Your task to perform on an android device: Open Reddit.com Image 0: 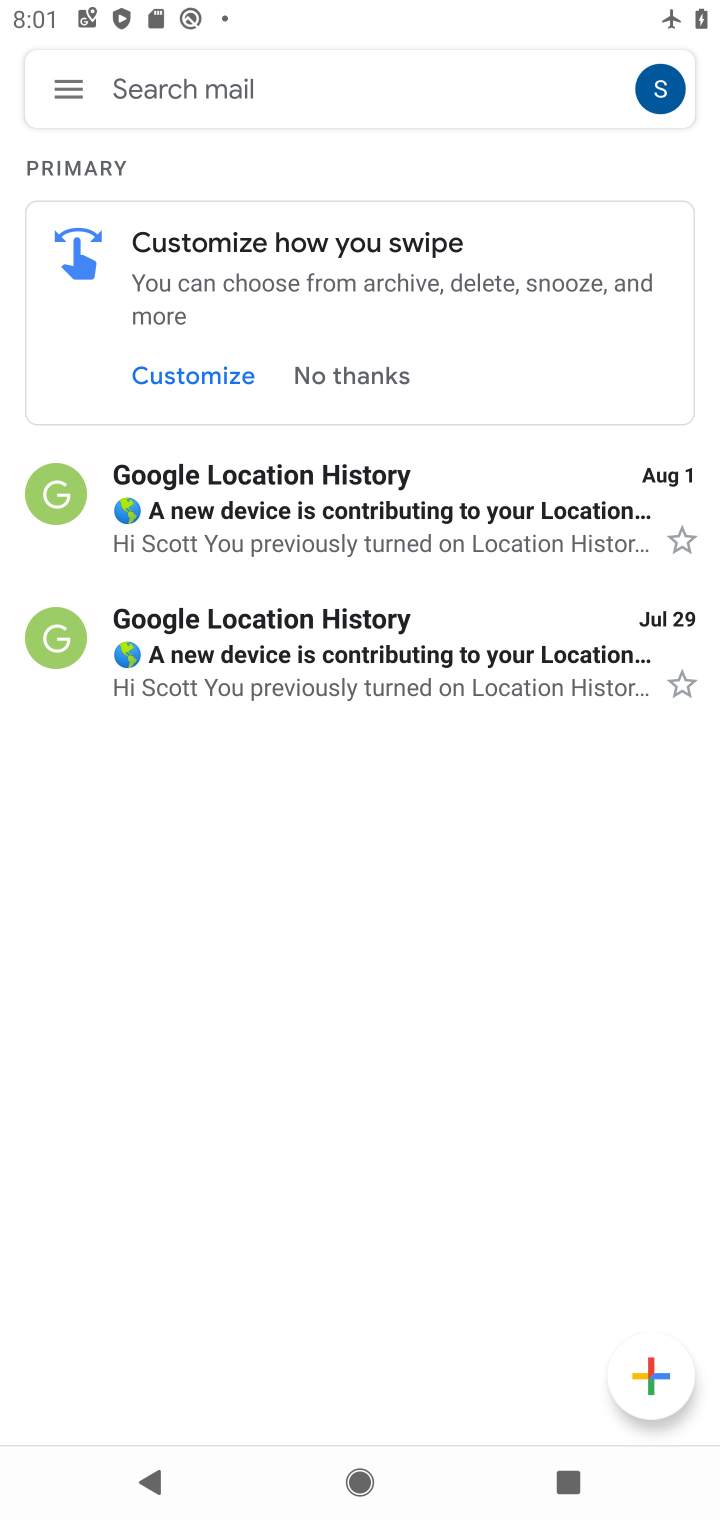
Step 0: press home button
Your task to perform on an android device: Open Reddit.com Image 1: 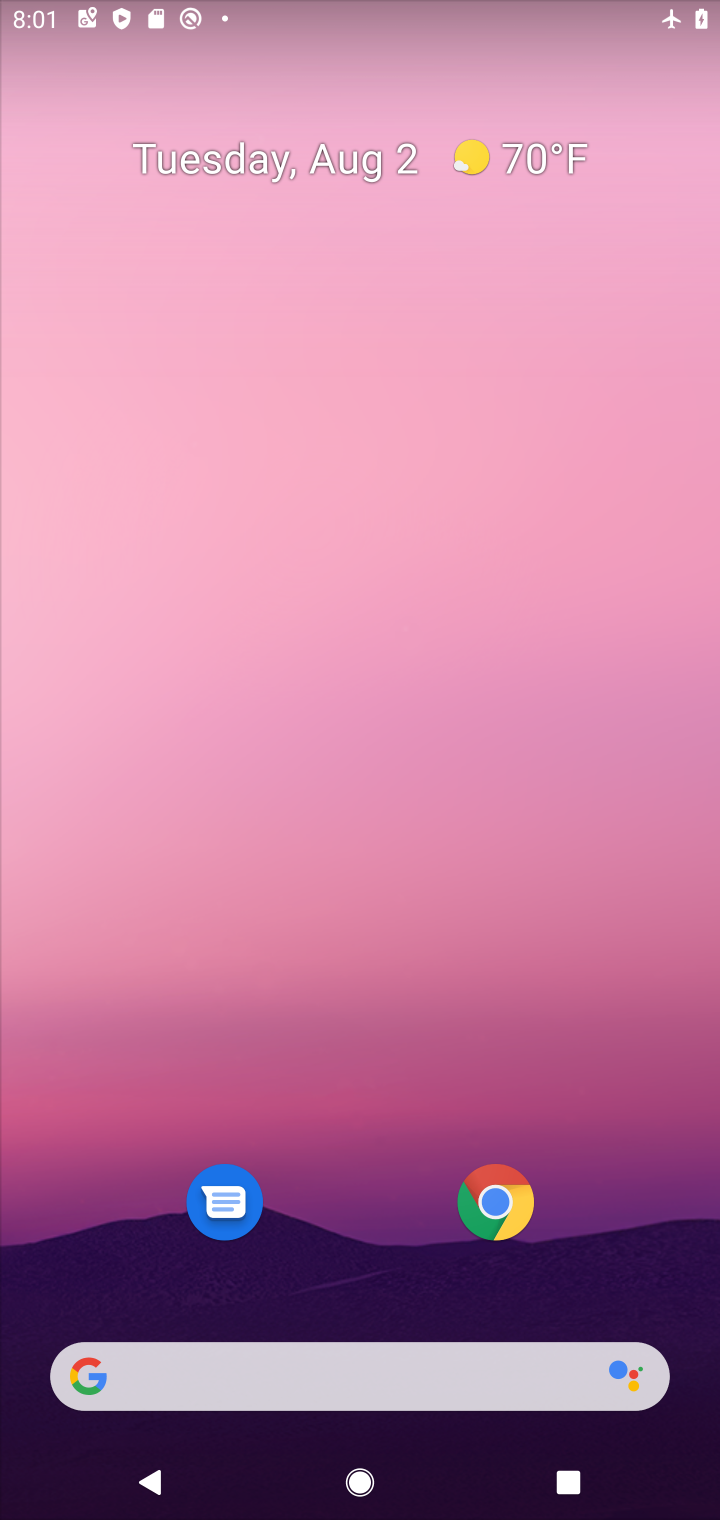
Step 1: drag from (367, 1203) to (412, 177)
Your task to perform on an android device: Open Reddit.com Image 2: 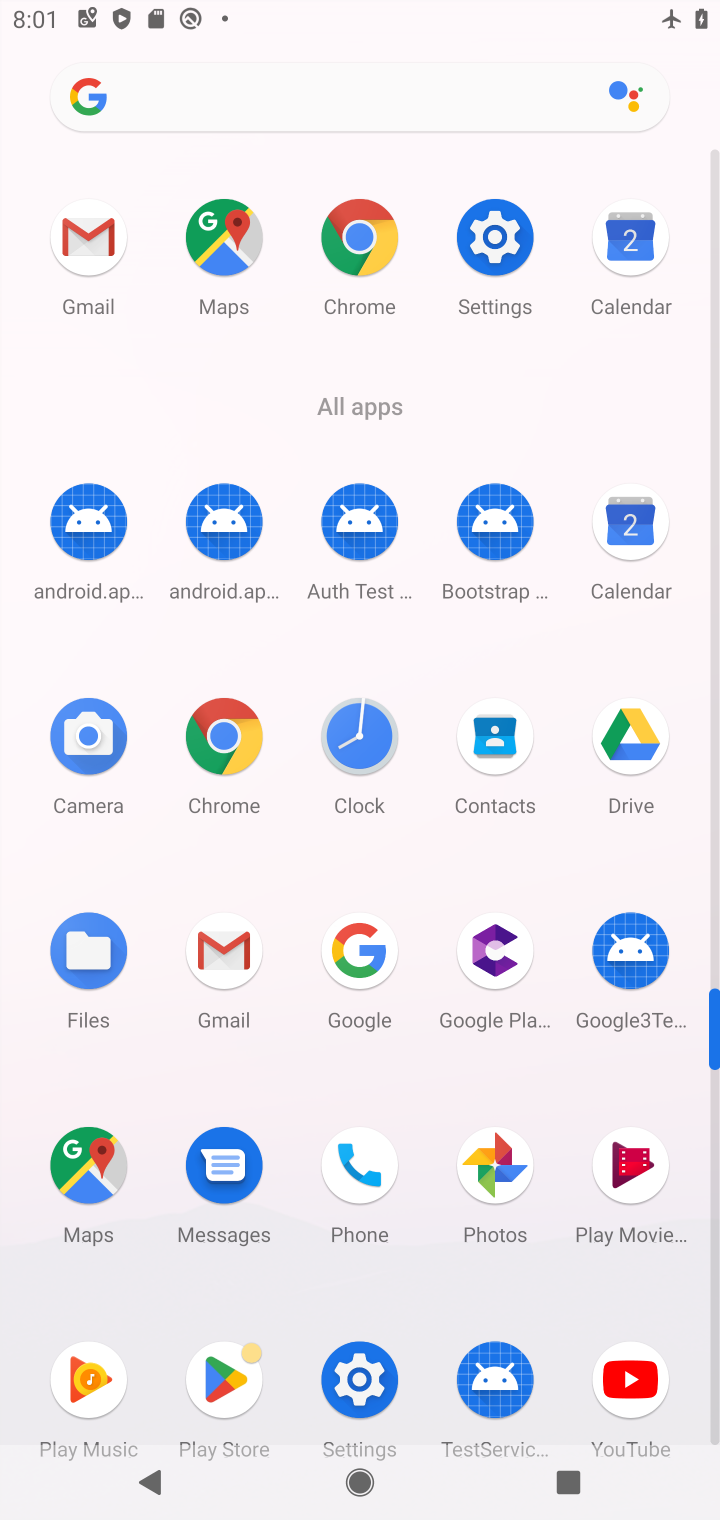
Step 2: click (275, 96)
Your task to perform on an android device: Open Reddit.com Image 3: 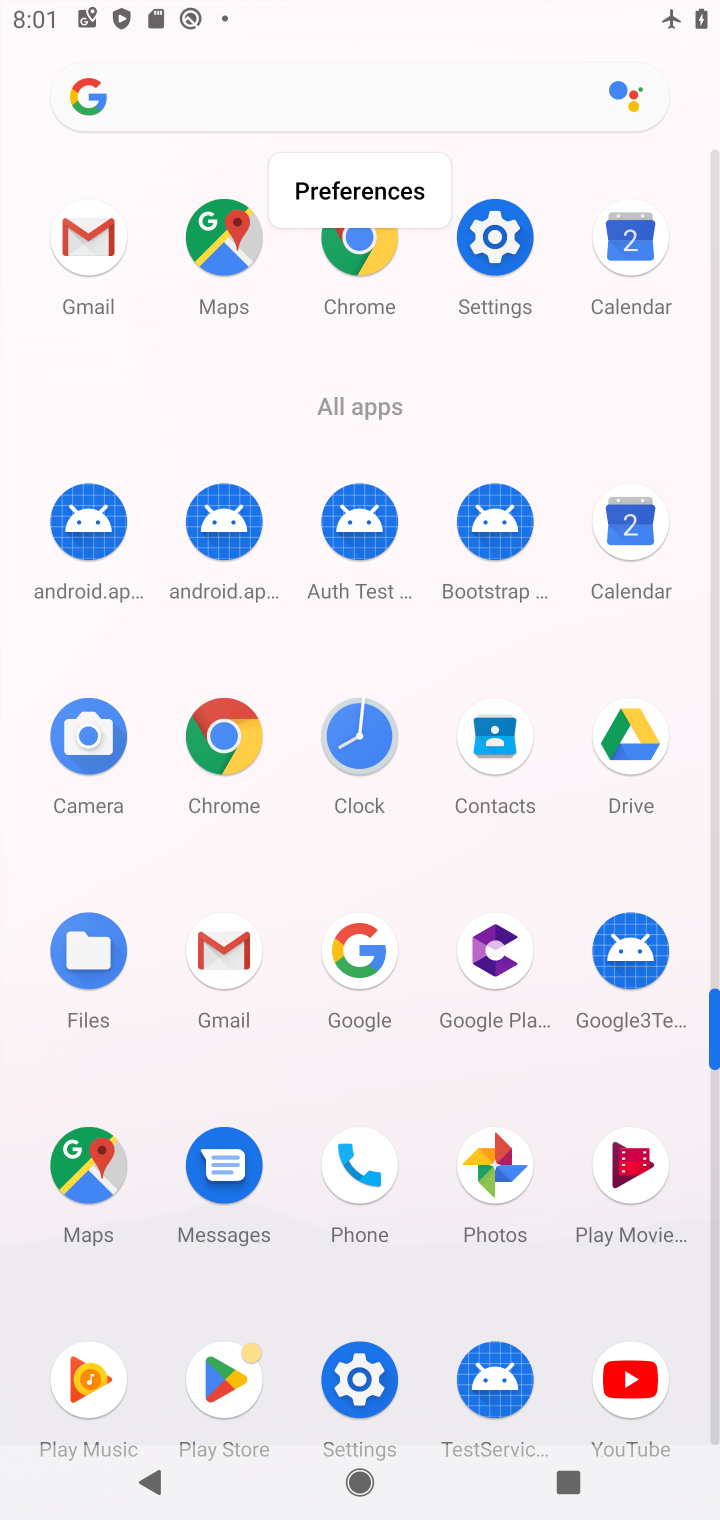
Step 3: click (370, 240)
Your task to perform on an android device: Open Reddit.com Image 4: 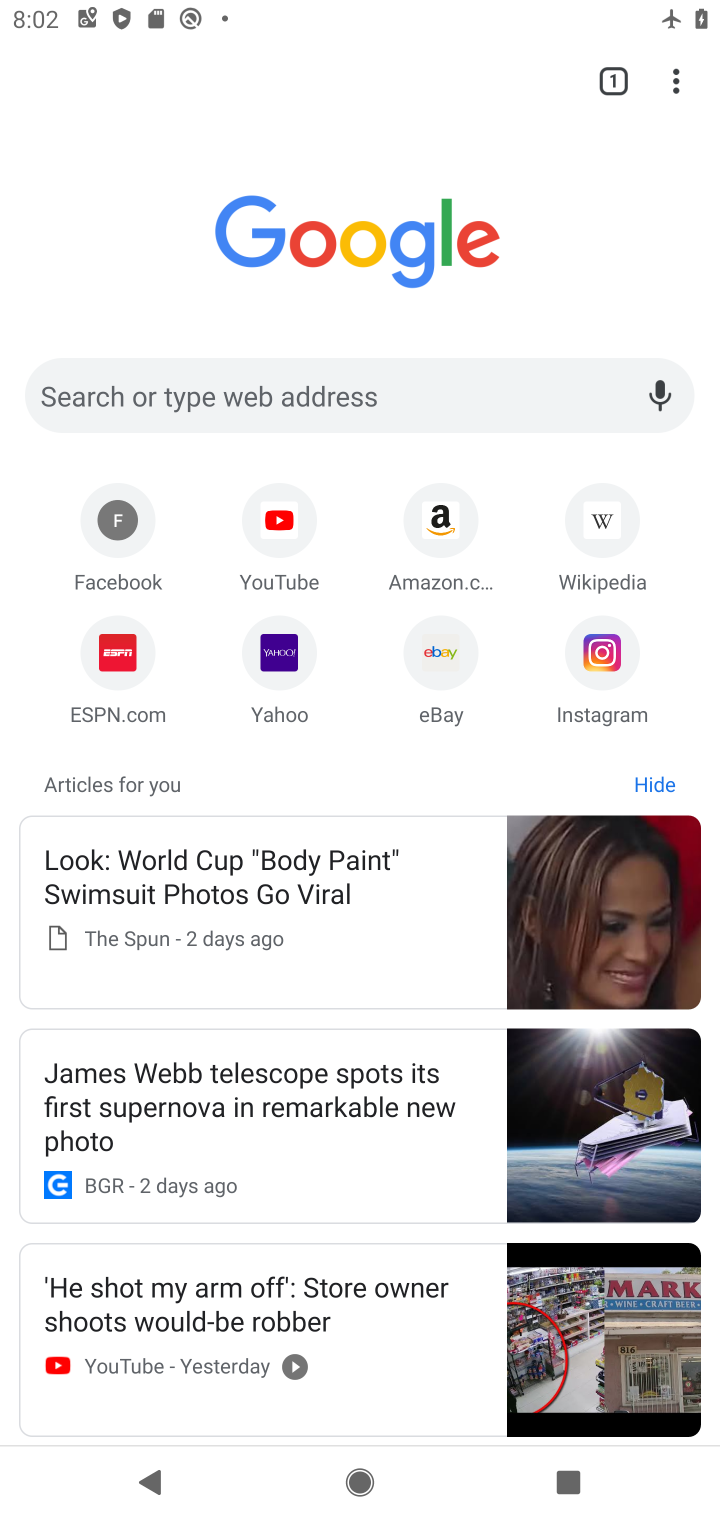
Step 4: click (266, 391)
Your task to perform on an android device: Open Reddit.com Image 5: 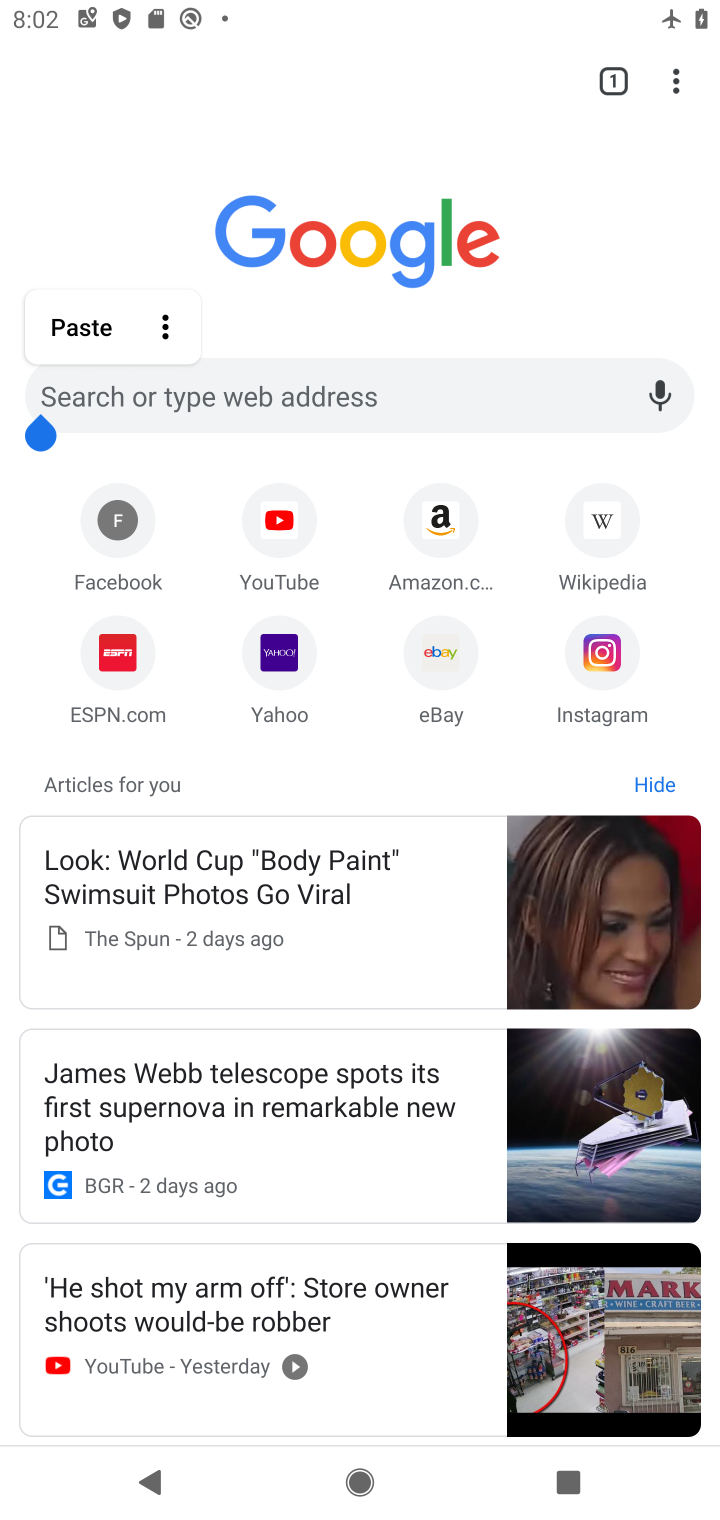
Step 5: click (181, 394)
Your task to perform on an android device: Open Reddit.com Image 6: 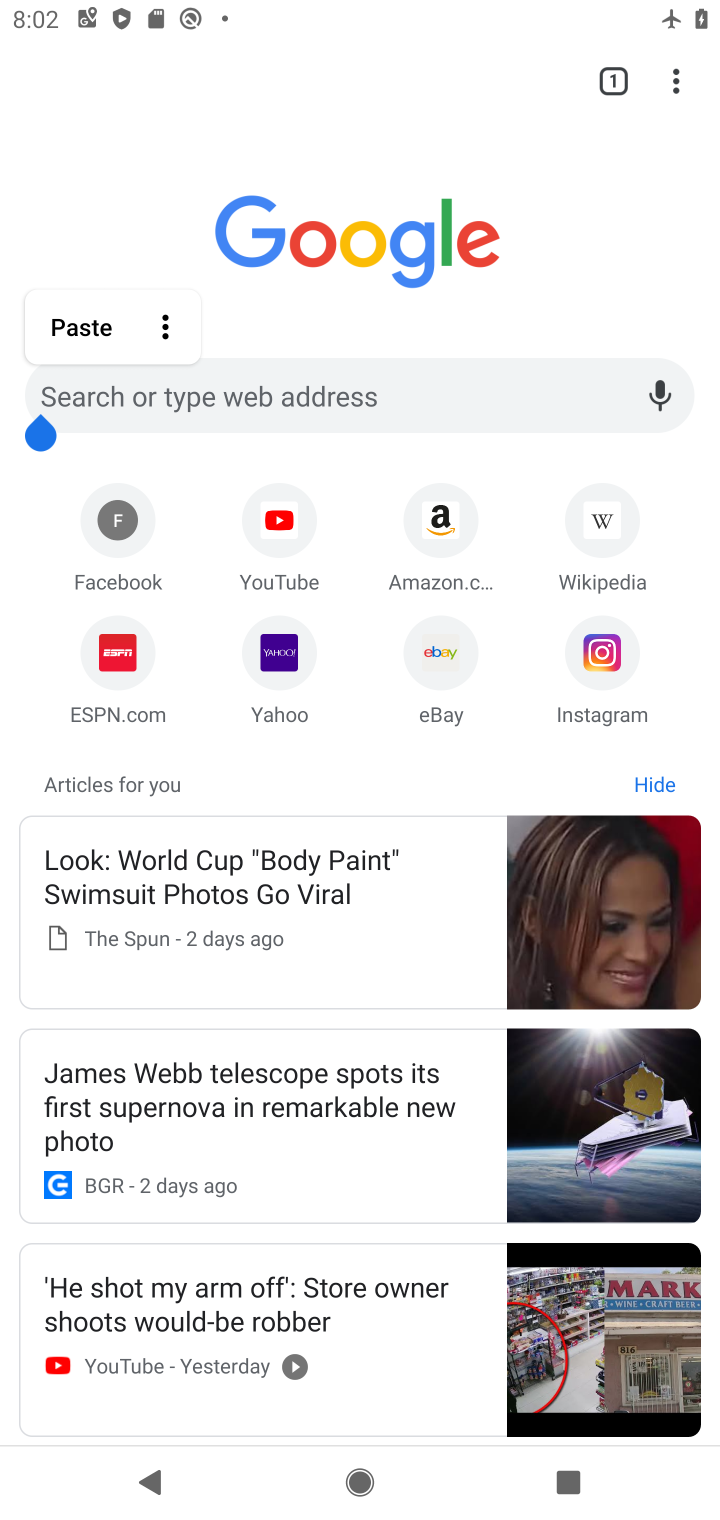
Step 6: click (113, 399)
Your task to perform on an android device: Open Reddit.com Image 7: 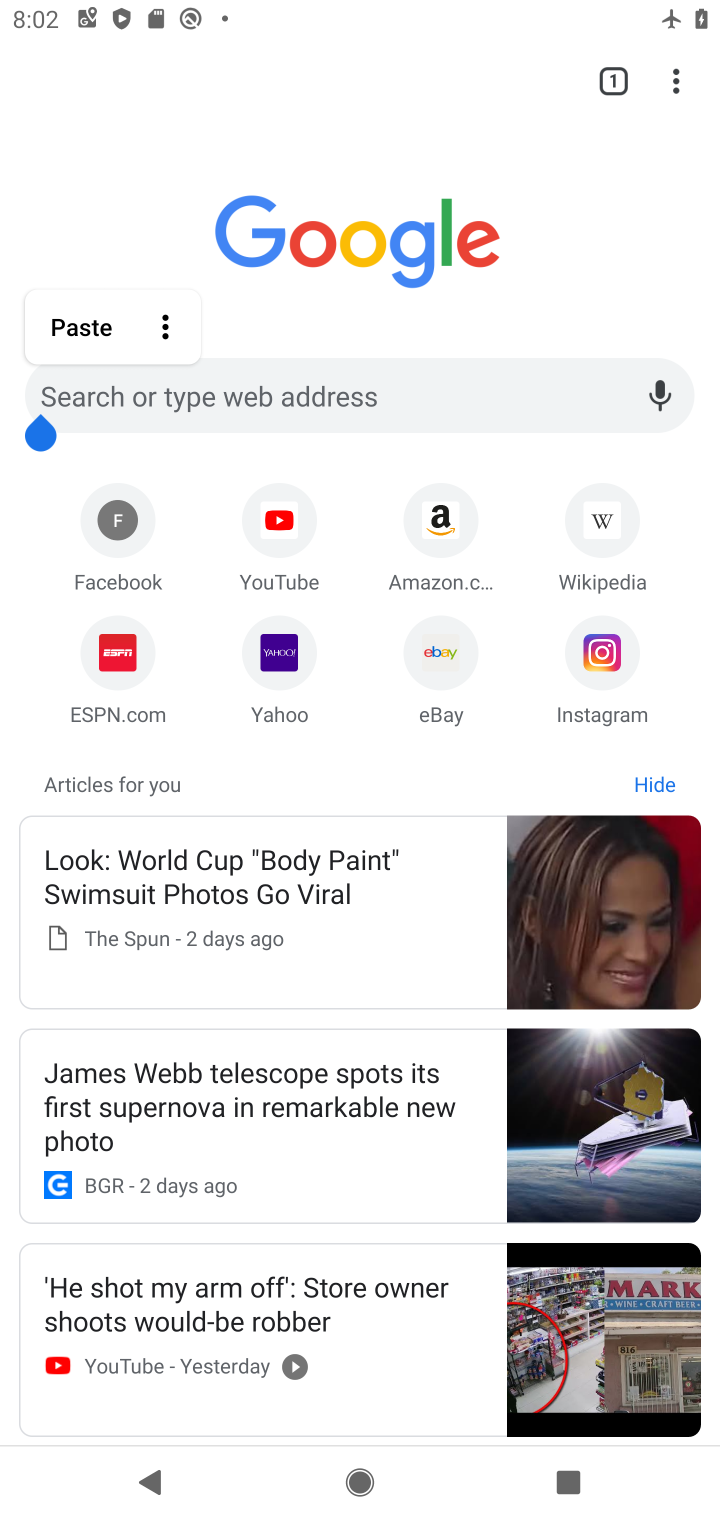
Step 7: click (110, 403)
Your task to perform on an android device: Open Reddit.com Image 8: 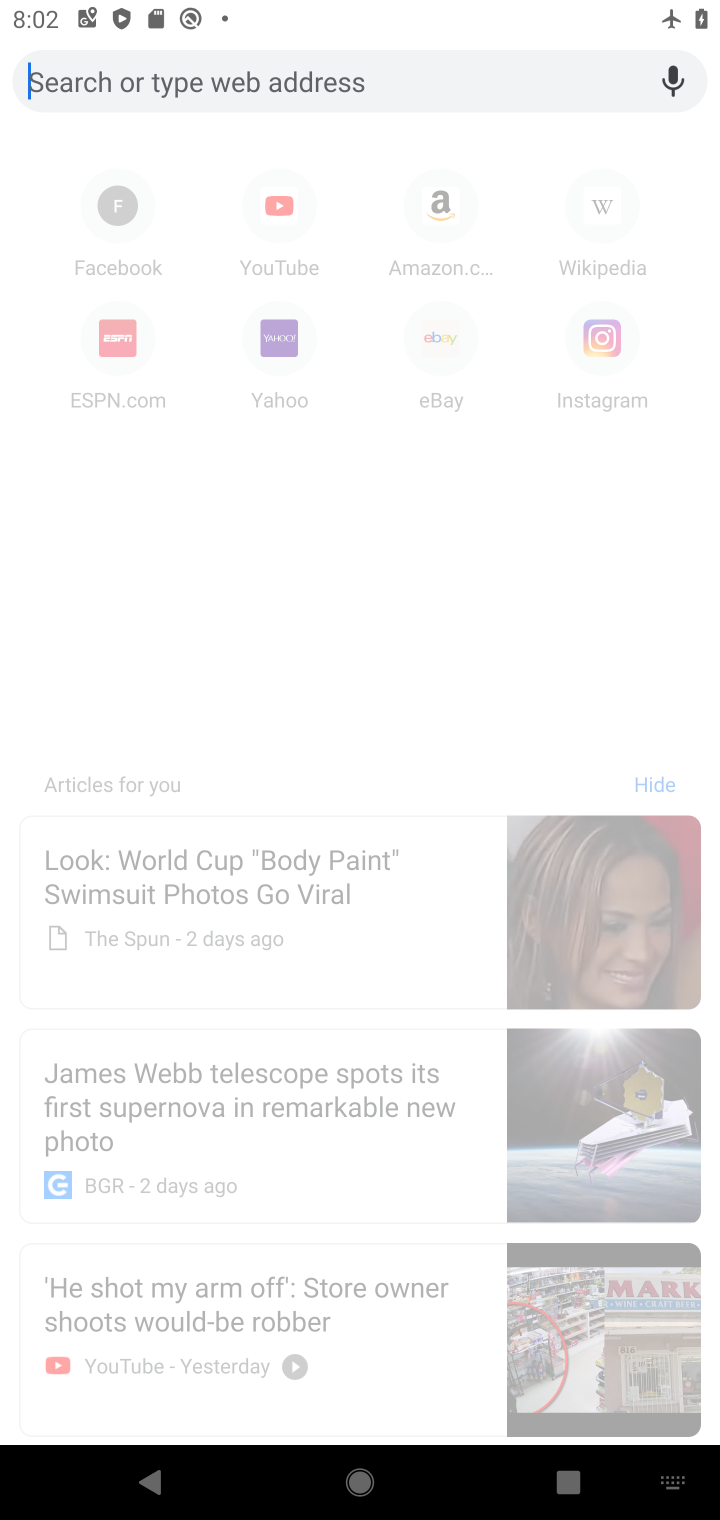
Step 8: type "reddit.com"
Your task to perform on an android device: Open Reddit.com Image 9: 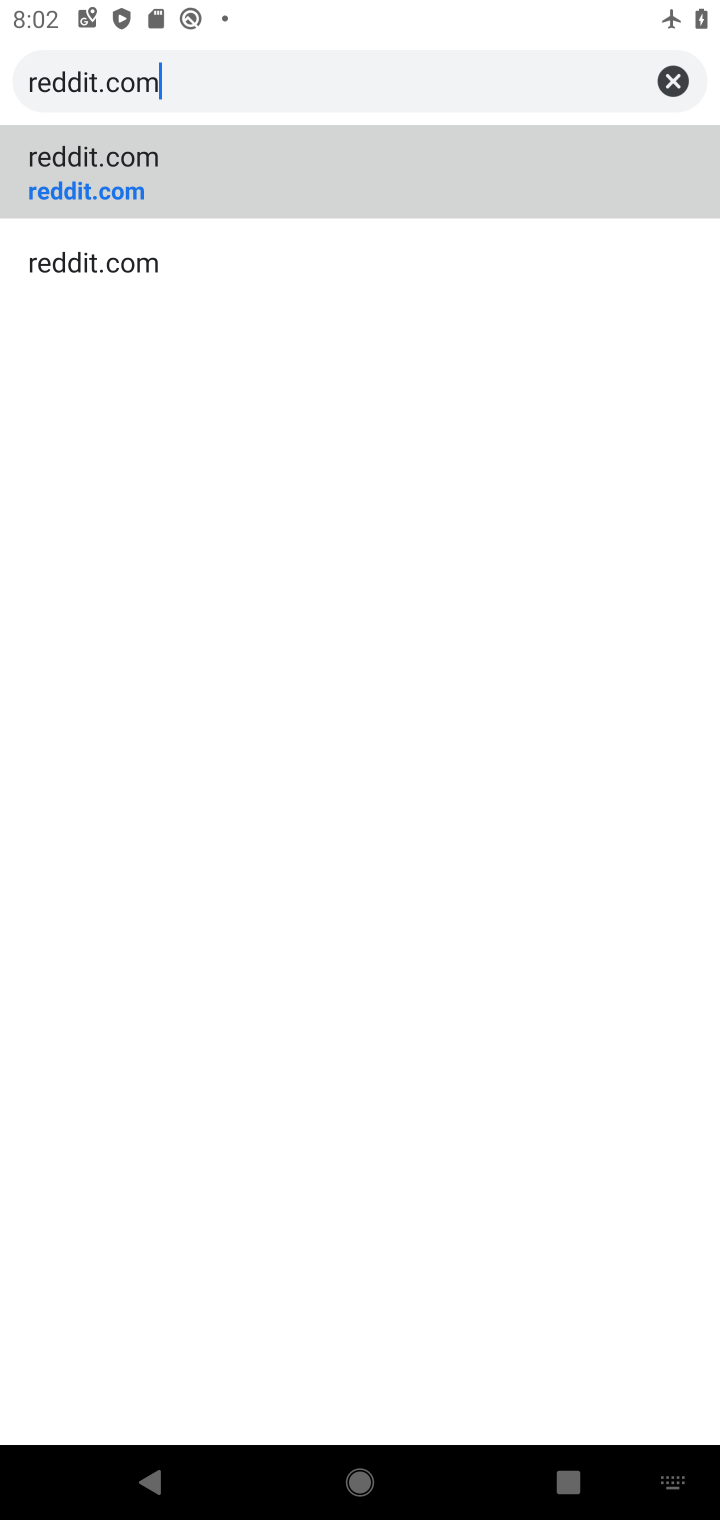
Step 9: click (128, 200)
Your task to perform on an android device: Open Reddit.com Image 10: 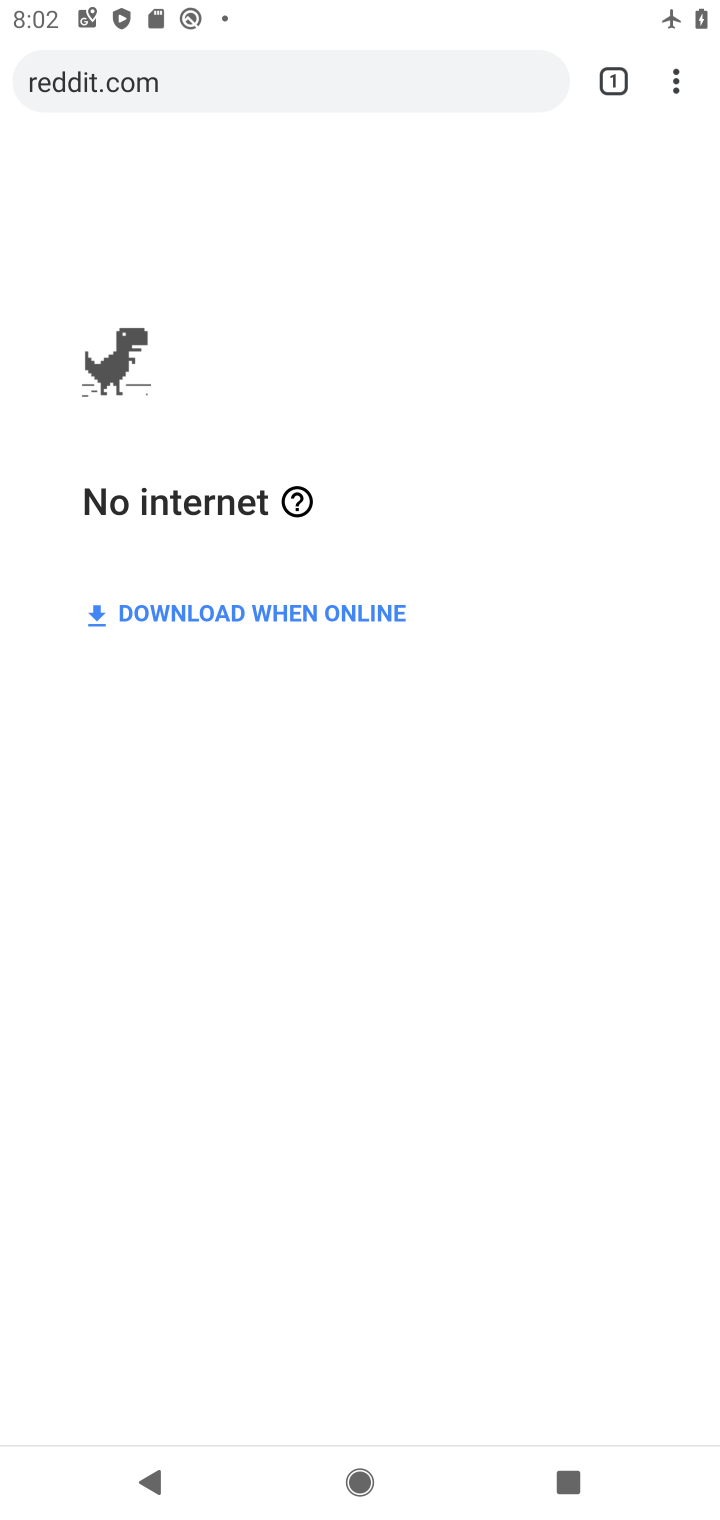
Step 10: task complete